Your task to perform on an android device: Go to Yahoo.com Image 0: 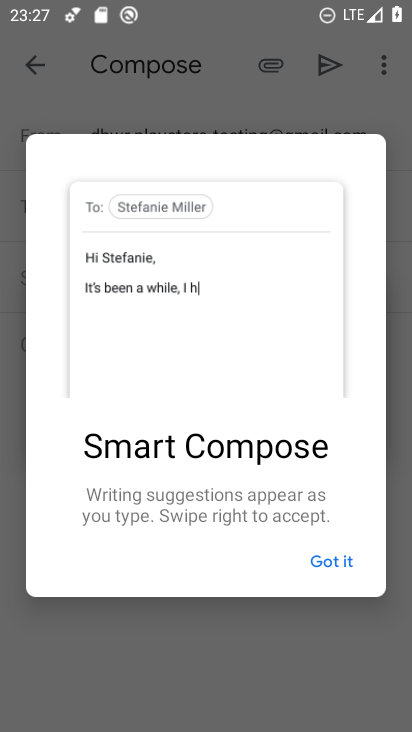
Step 0: press home button
Your task to perform on an android device: Go to Yahoo.com Image 1: 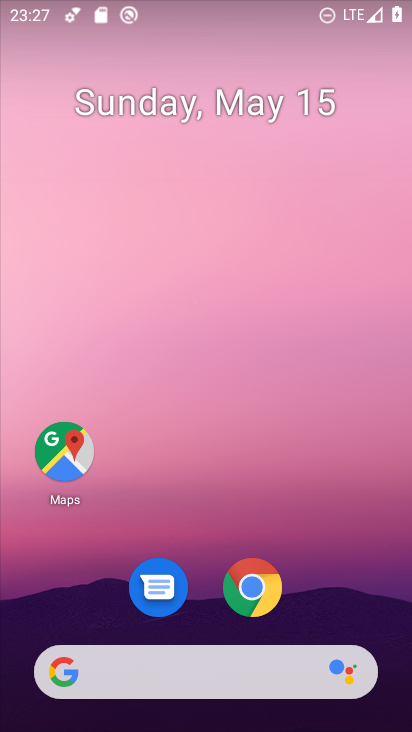
Step 1: click (261, 597)
Your task to perform on an android device: Go to Yahoo.com Image 2: 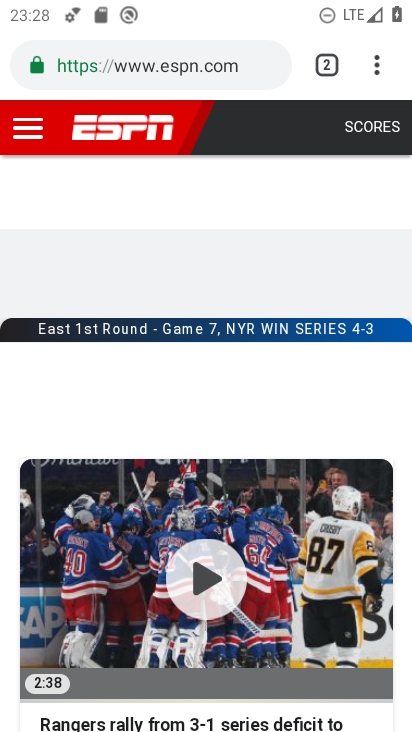
Step 2: click (317, 64)
Your task to perform on an android device: Go to Yahoo.com Image 3: 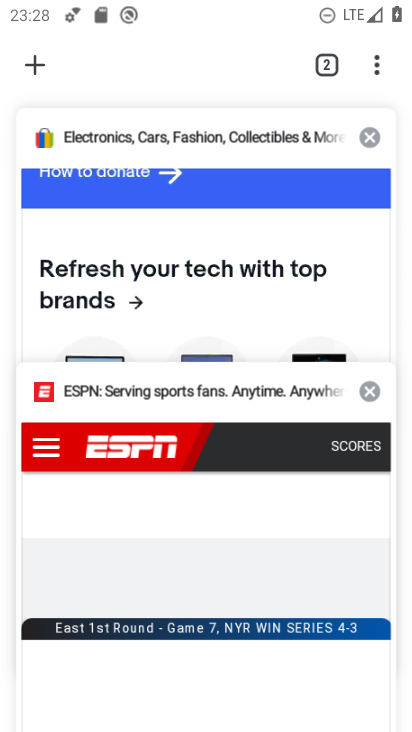
Step 3: click (37, 67)
Your task to perform on an android device: Go to Yahoo.com Image 4: 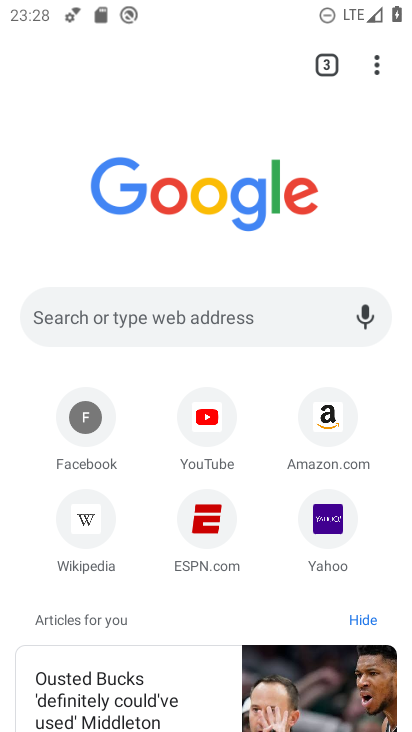
Step 4: click (314, 526)
Your task to perform on an android device: Go to Yahoo.com Image 5: 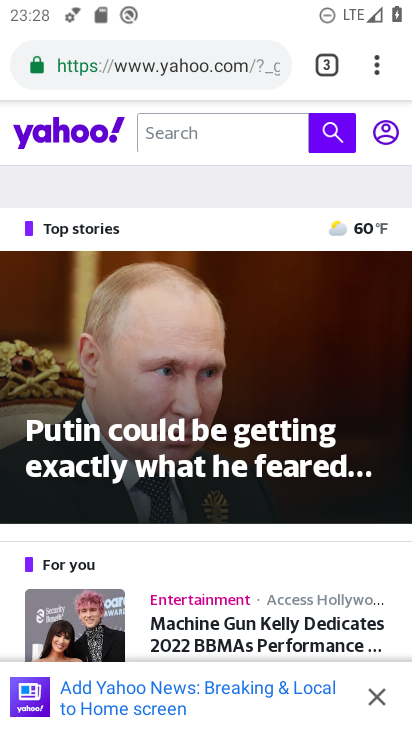
Step 5: task complete